Your task to perform on an android device: find photos in the google photos app Image 0: 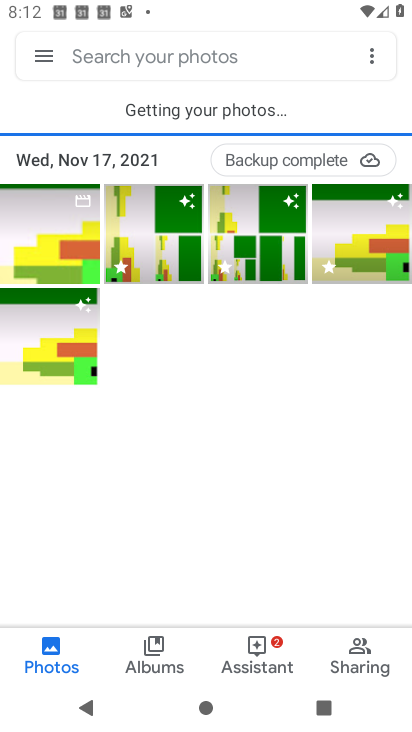
Step 0: press home button
Your task to perform on an android device: find photos in the google photos app Image 1: 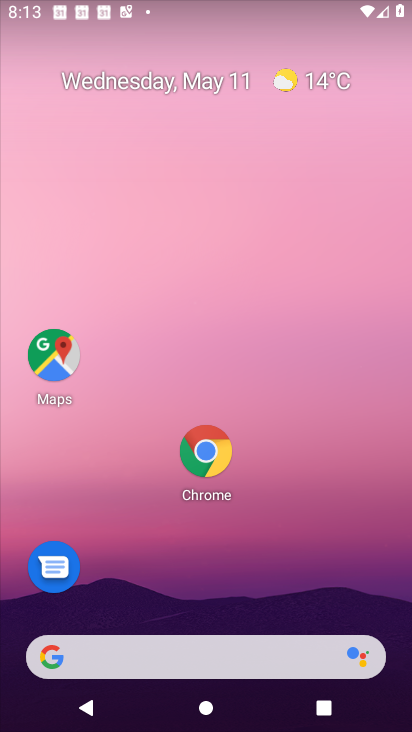
Step 1: drag from (169, 643) to (274, 201)
Your task to perform on an android device: find photos in the google photos app Image 2: 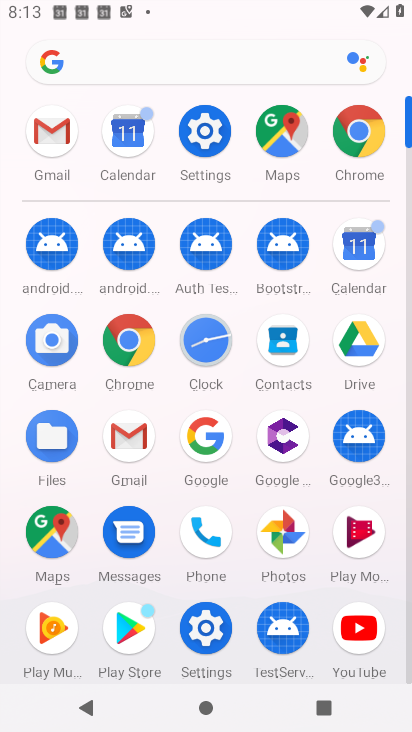
Step 2: click (293, 527)
Your task to perform on an android device: find photos in the google photos app Image 3: 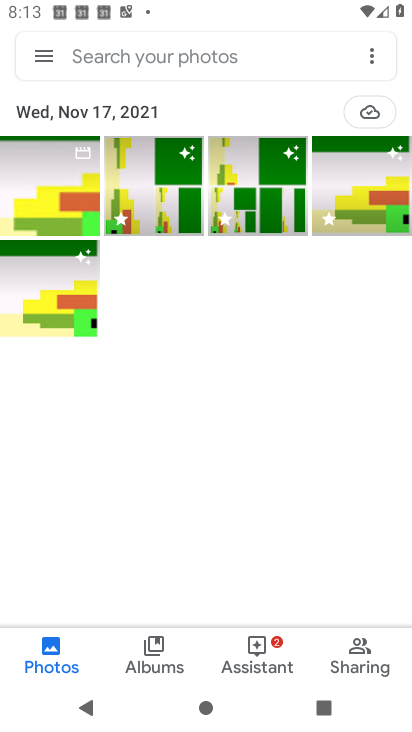
Step 3: task complete